Your task to perform on an android device: Go to Yahoo.com Image 0: 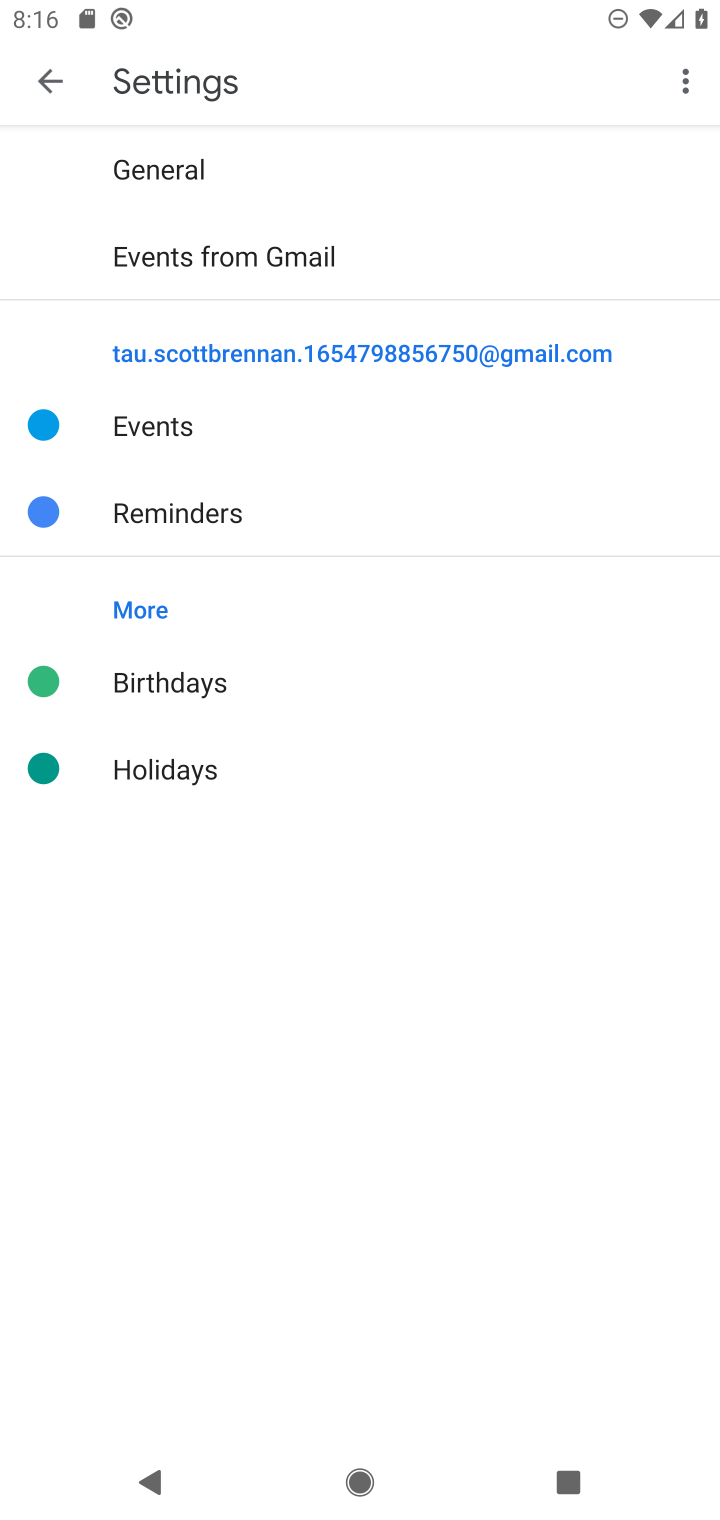
Step 0: press home button
Your task to perform on an android device: Go to Yahoo.com Image 1: 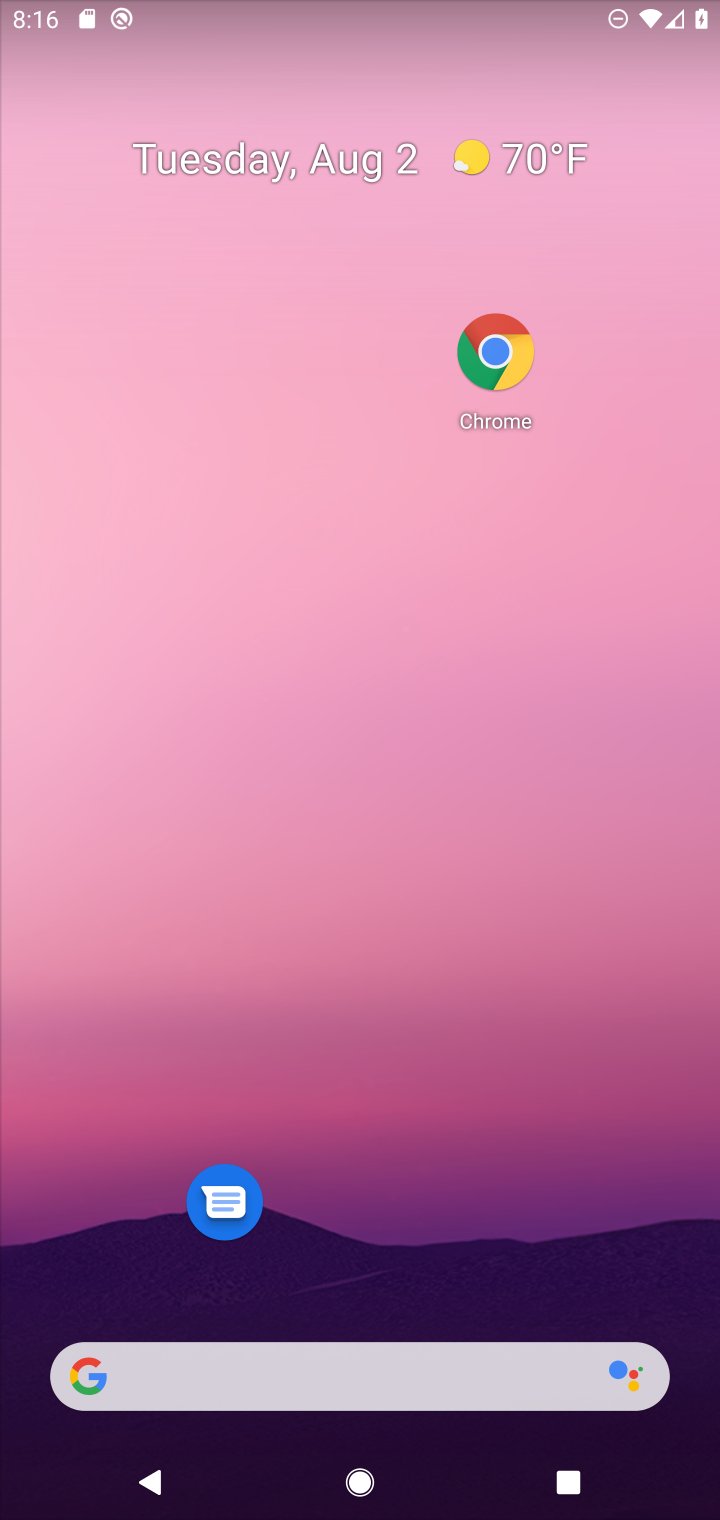
Step 1: click (506, 349)
Your task to perform on an android device: Go to Yahoo.com Image 2: 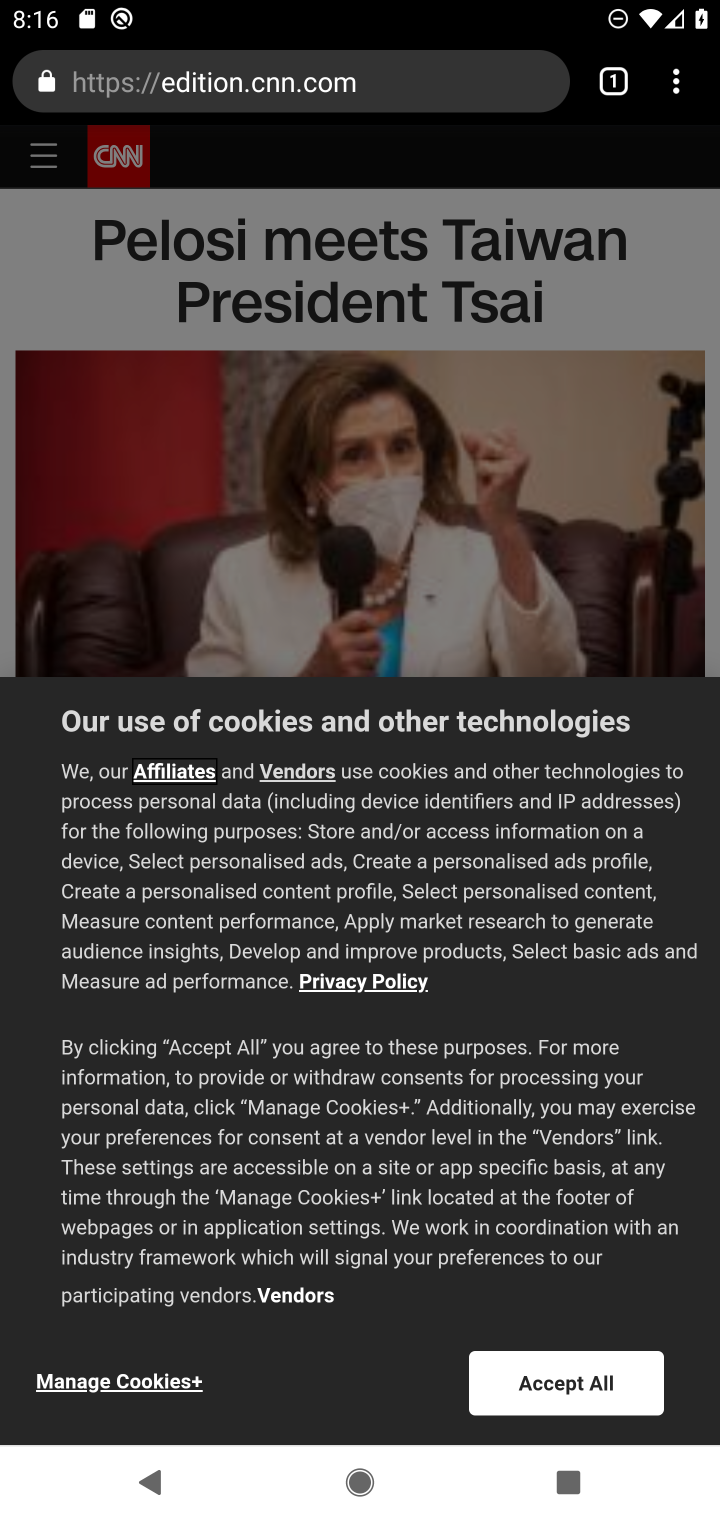
Step 2: click (362, 92)
Your task to perform on an android device: Go to Yahoo.com Image 3: 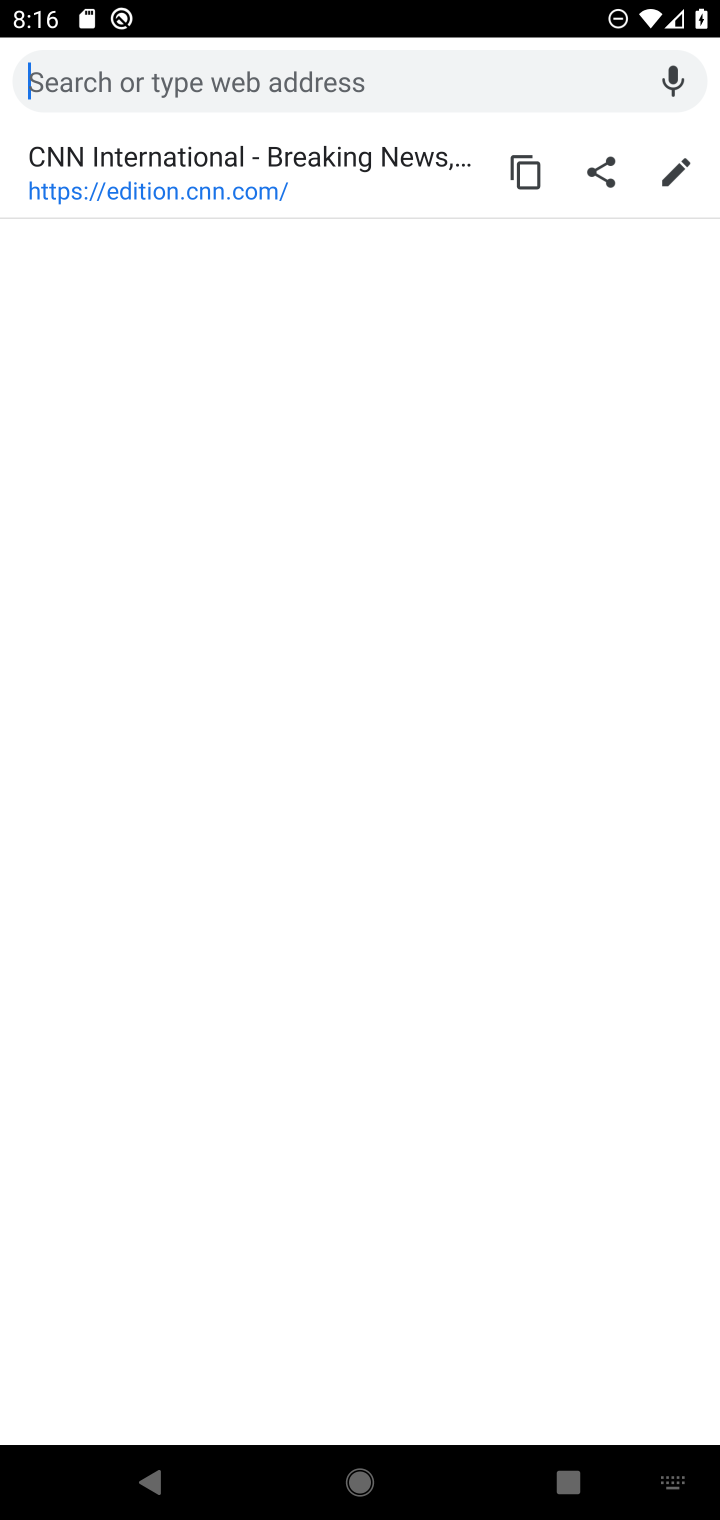
Step 3: type "yahoo.com"
Your task to perform on an android device: Go to Yahoo.com Image 4: 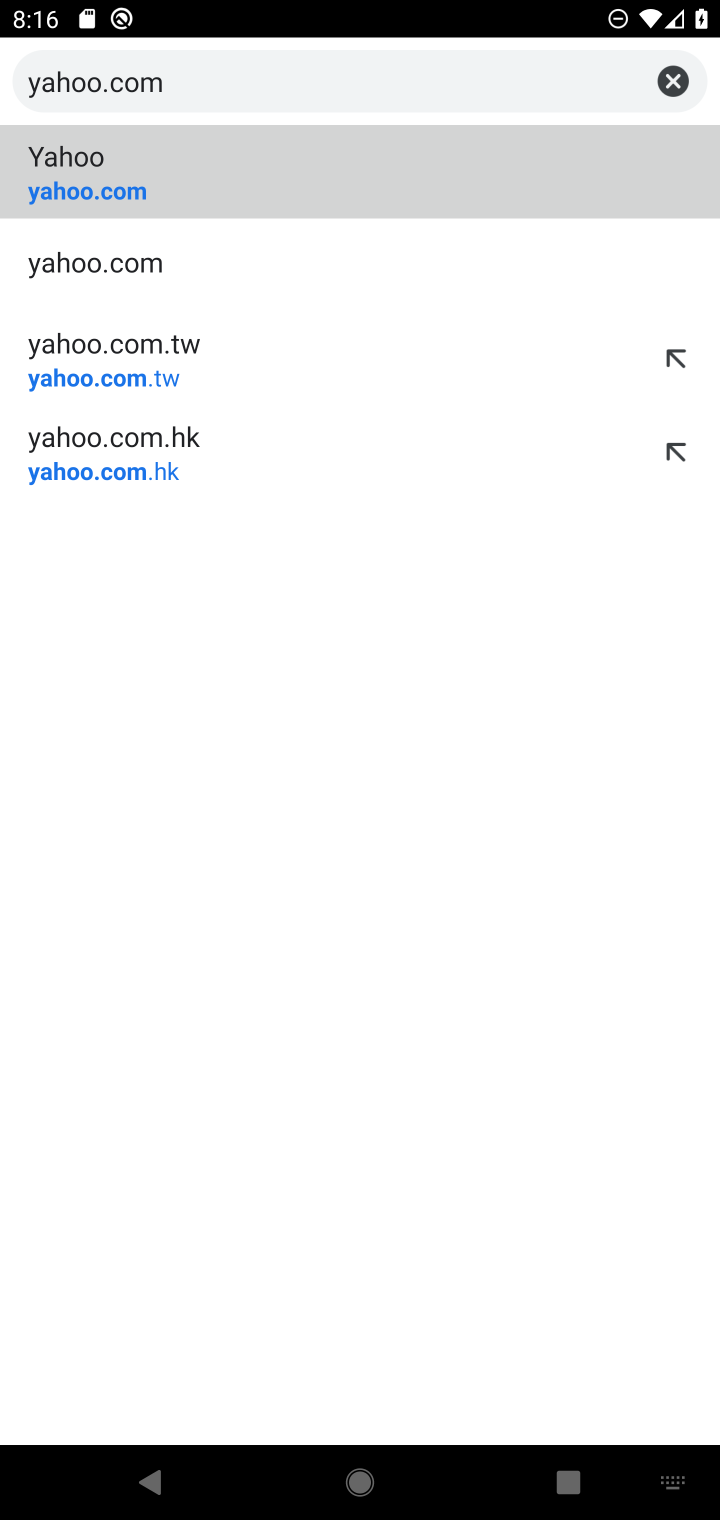
Step 4: click (83, 182)
Your task to perform on an android device: Go to Yahoo.com Image 5: 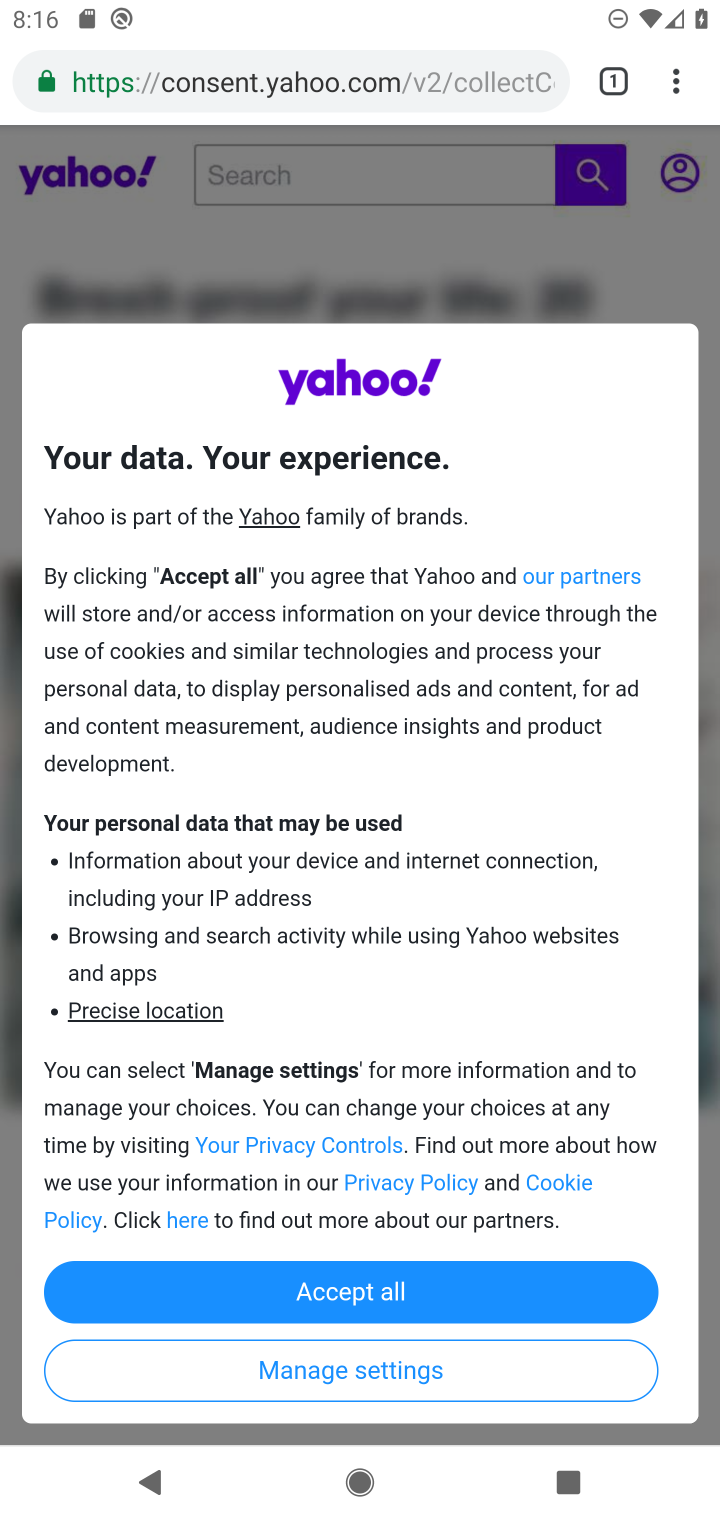
Step 5: task complete